Your task to perform on an android device: Open accessibility settings Image 0: 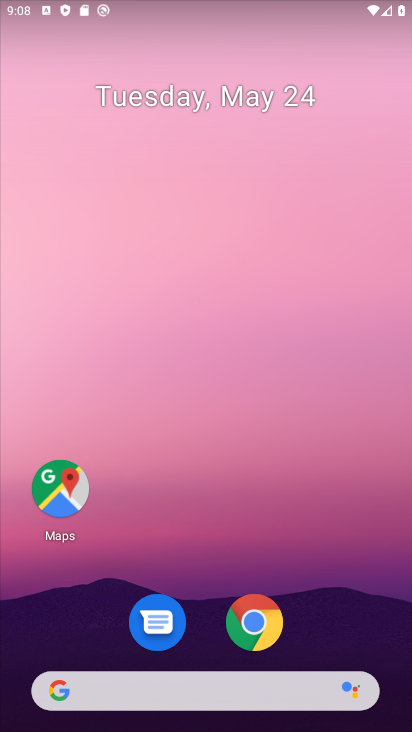
Step 0: press home button
Your task to perform on an android device: Open accessibility settings Image 1: 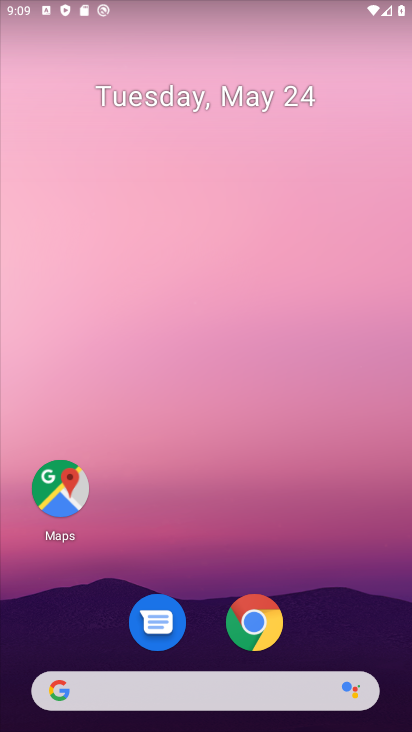
Step 1: drag from (173, 710) to (170, 151)
Your task to perform on an android device: Open accessibility settings Image 2: 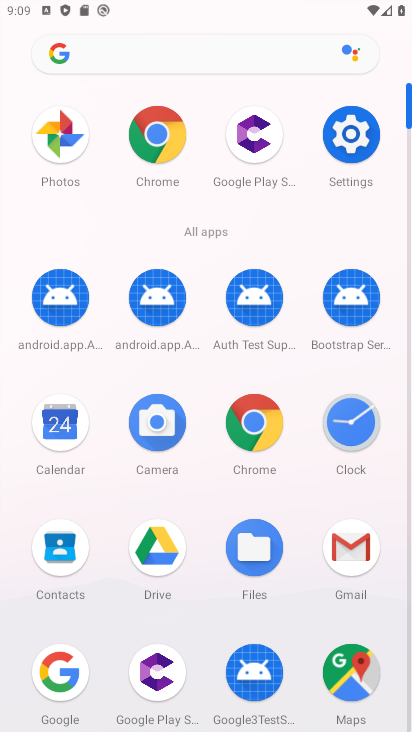
Step 2: click (348, 128)
Your task to perform on an android device: Open accessibility settings Image 3: 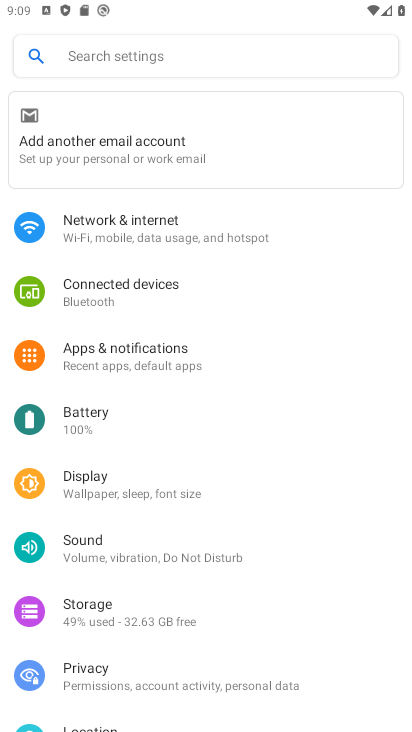
Step 3: click (128, 58)
Your task to perform on an android device: Open accessibility settings Image 4: 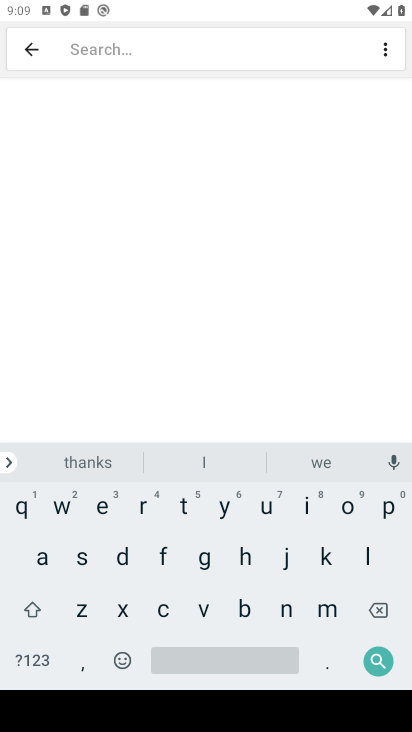
Step 4: click (31, 556)
Your task to perform on an android device: Open accessibility settings Image 5: 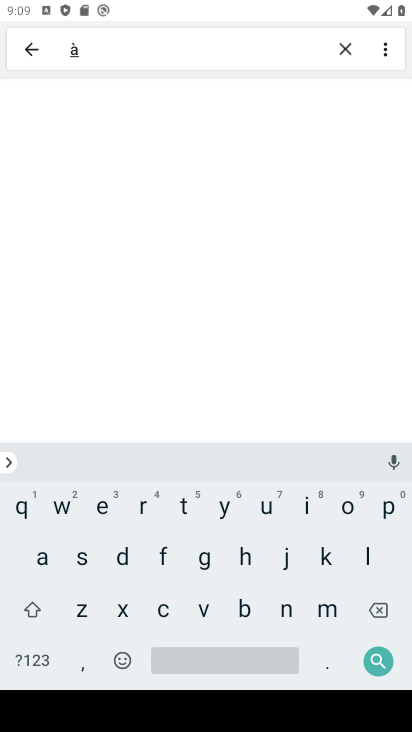
Step 5: click (160, 602)
Your task to perform on an android device: Open accessibility settings Image 6: 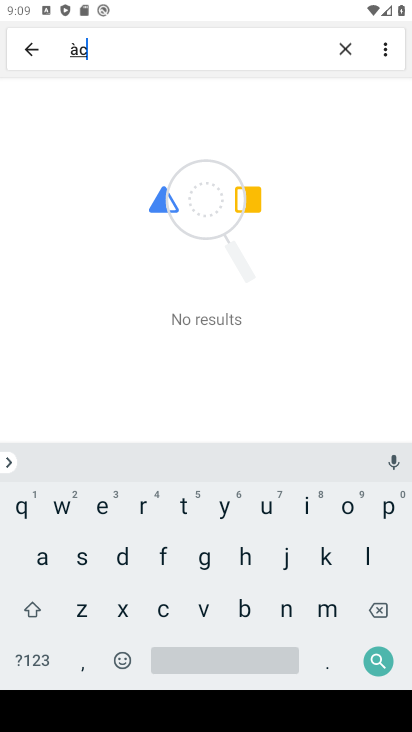
Step 6: click (357, 621)
Your task to perform on an android device: Open accessibility settings Image 7: 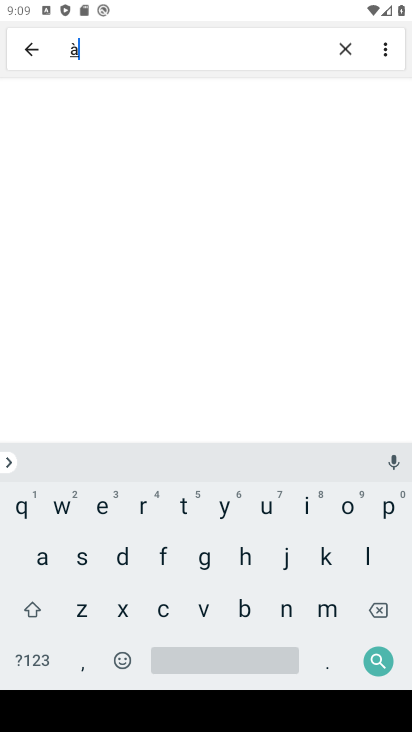
Step 7: click (377, 605)
Your task to perform on an android device: Open accessibility settings Image 8: 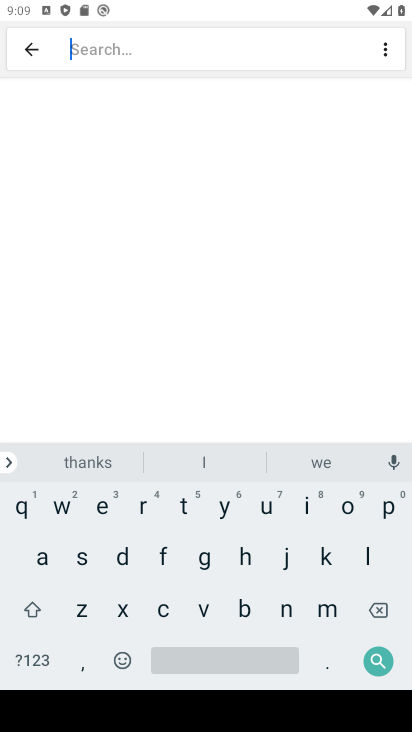
Step 8: click (35, 560)
Your task to perform on an android device: Open accessibility settings Image 9: 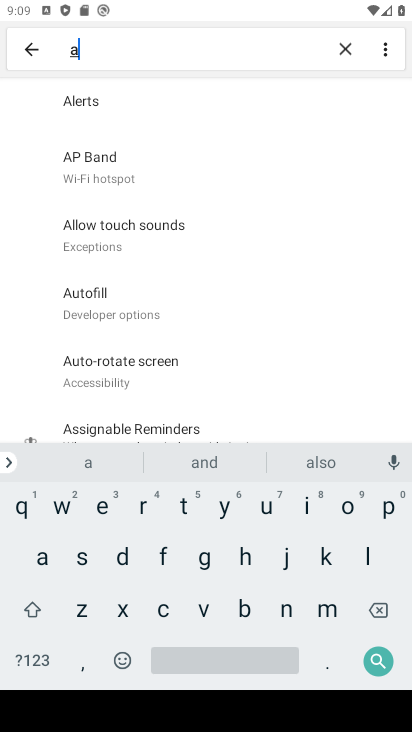
Step 9: click (153, 617)
Your task to perform on an android device: Open accessibility settings Image 10: 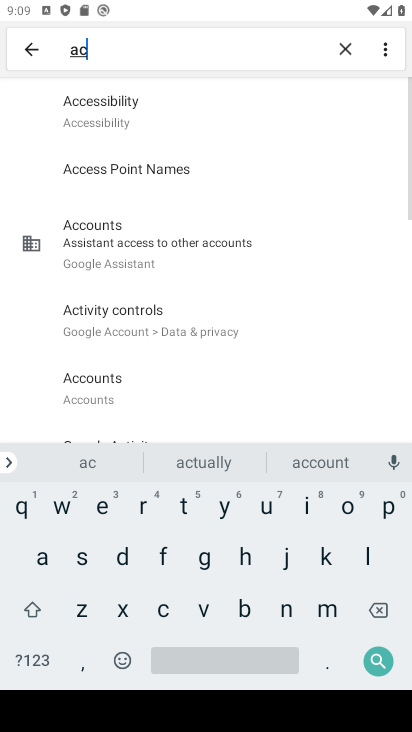
Step 10: click (134, 114)
Your task to perform on an android device: Open accessibility settings Image 11: 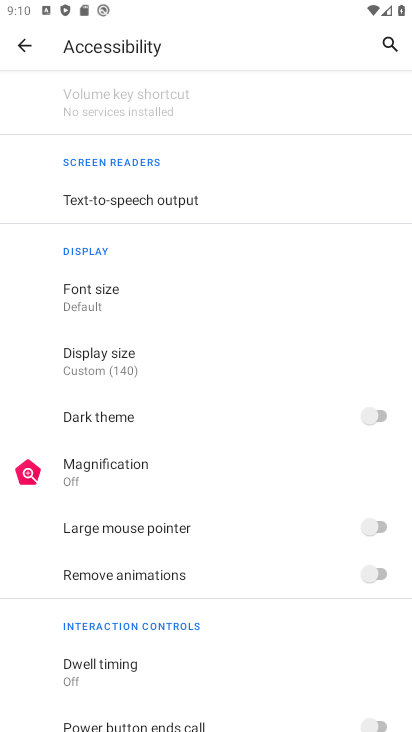
Step 11: task complete